Your task to perform on an android device: open a new tab in the chrome app Image 0: 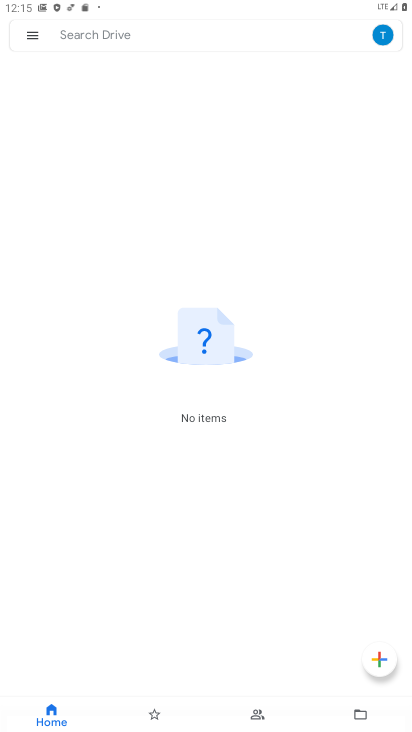
Step 0: press home button
Your task to perform on an android device: open a new tab in the chrome app Image 1: 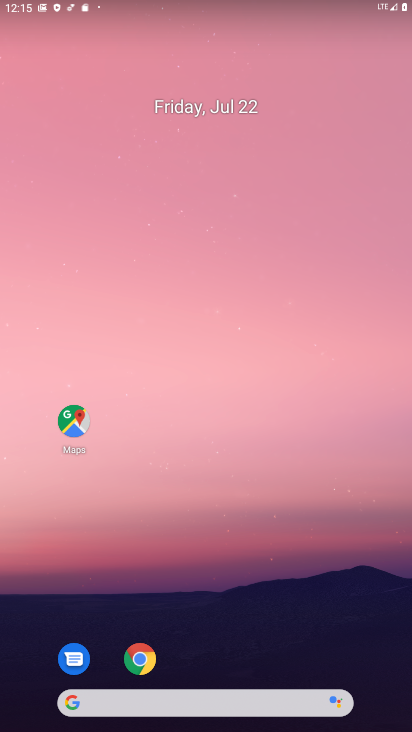
Step 1: click (141, 673)
Your task to perform on an android device: open a new tab in the chrome app Image 2: 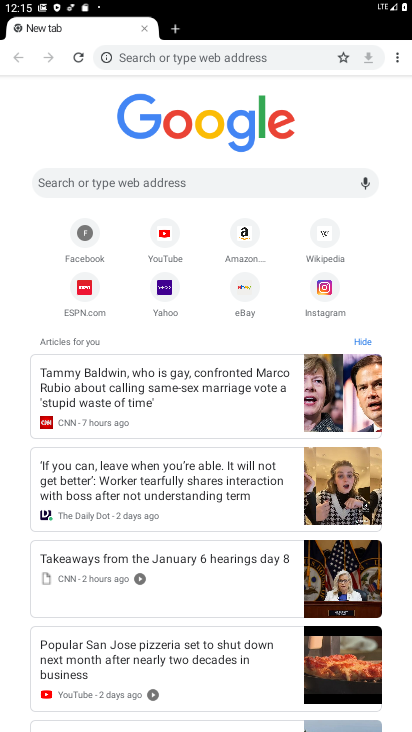
Step 2: click (175, 34)
Your task to perform on an android device: open a new tab in the chrome app Image 3: 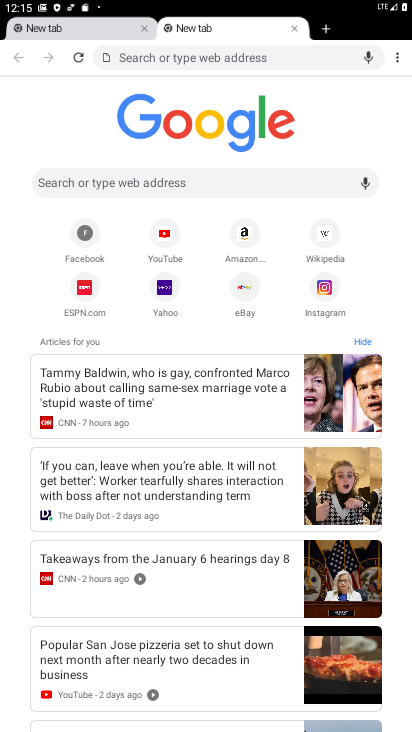
Step 3: task complete